Your task to perform on an android device: open a bookmark in the chrome app Image 0: 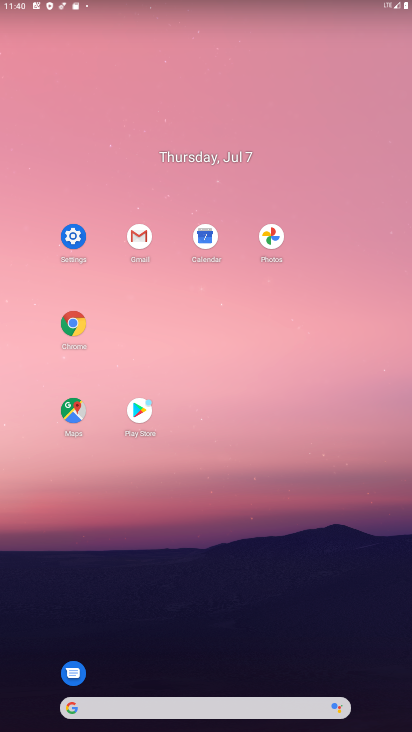
Step 0: click (82, 319)
Your task to perform on an android device: open a bookmark in the chrome app Image 1: 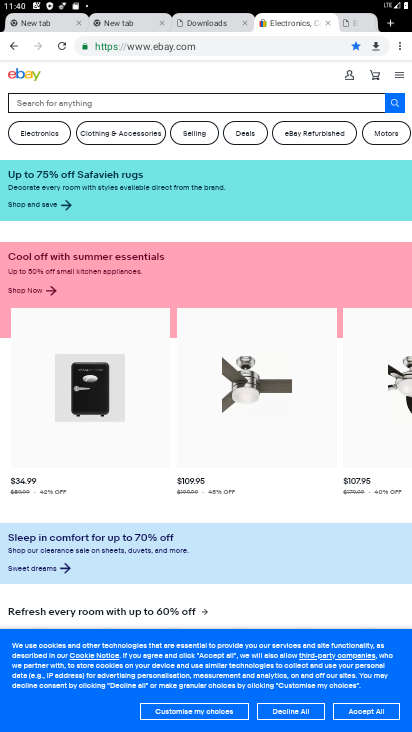
Step 1: click (398, 51)
Your task to perform on an android device: open a bookmark in the chrome app Image 2: 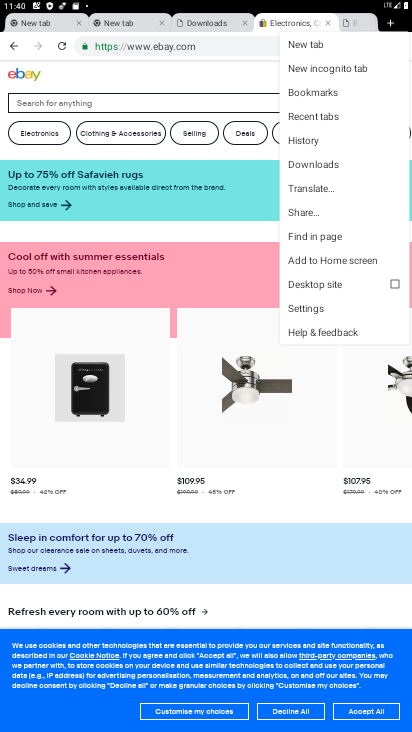
Step 2: click (312, 86)
Your task to perform on an android device: open a bookmark in the chrome app Image 3: 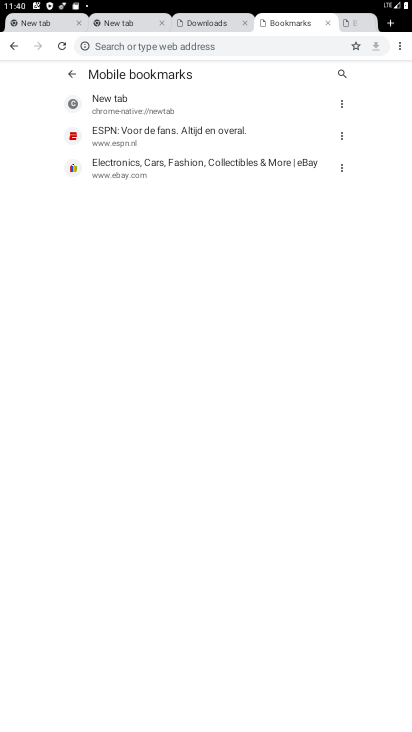
Step 3: task complete